Your task to perform on an android device: Go to display settings Image 0: 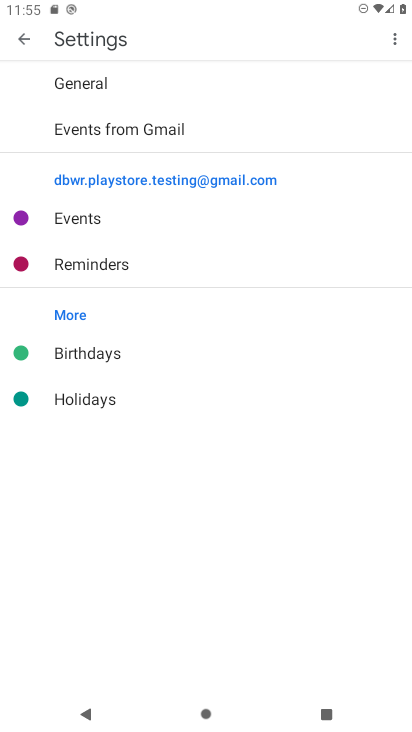
Step 0: press home button
Your task to perform on an android device: Go to display settings Image 1: 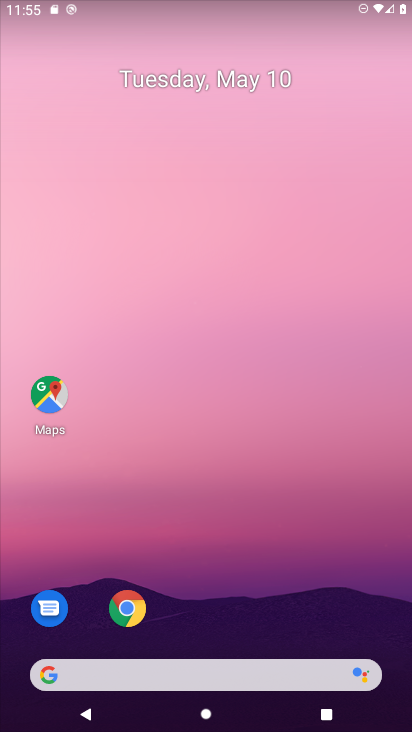
Step 1: drag from (252, 547) to (269, 45)
Your task to perform on an android device: Go to display settings Image 2: 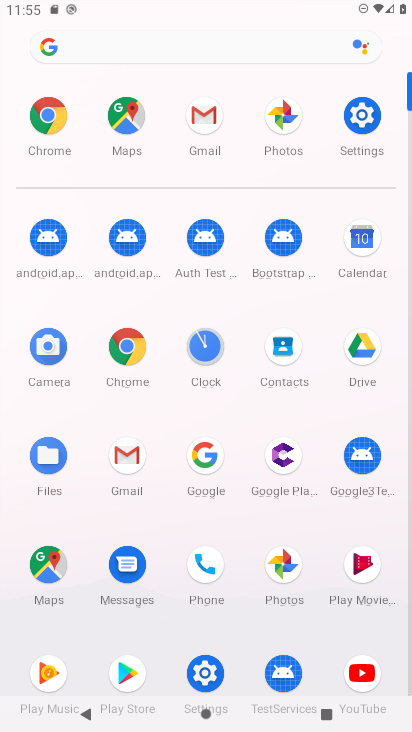
Step 2: click (359, 113)
Your task to perform on an android device: Go to display settings Image 3: 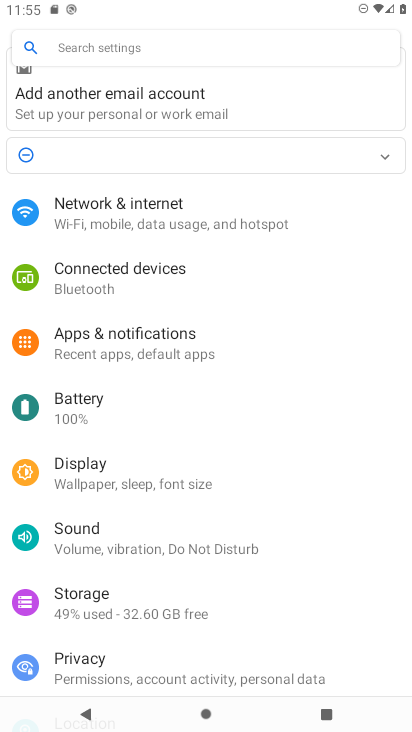
Step 3: click (125, 474)
Your task to perform on an android device: Go to display settings Image 4: 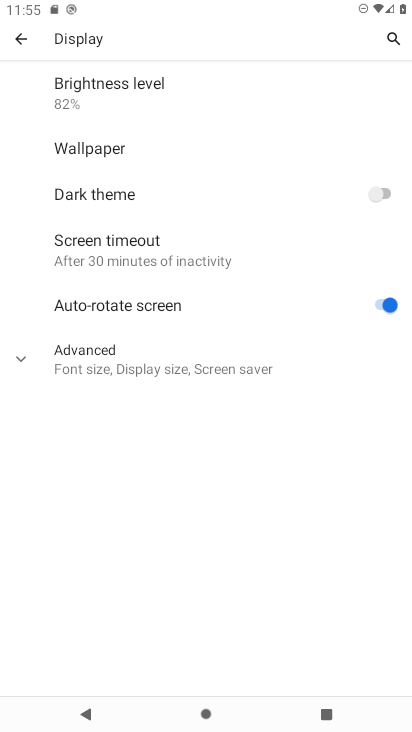
Step 4: task complete